Your task to perform on an android device: Search for the best rated kitchen reno kits on Lowes.com Image 0: 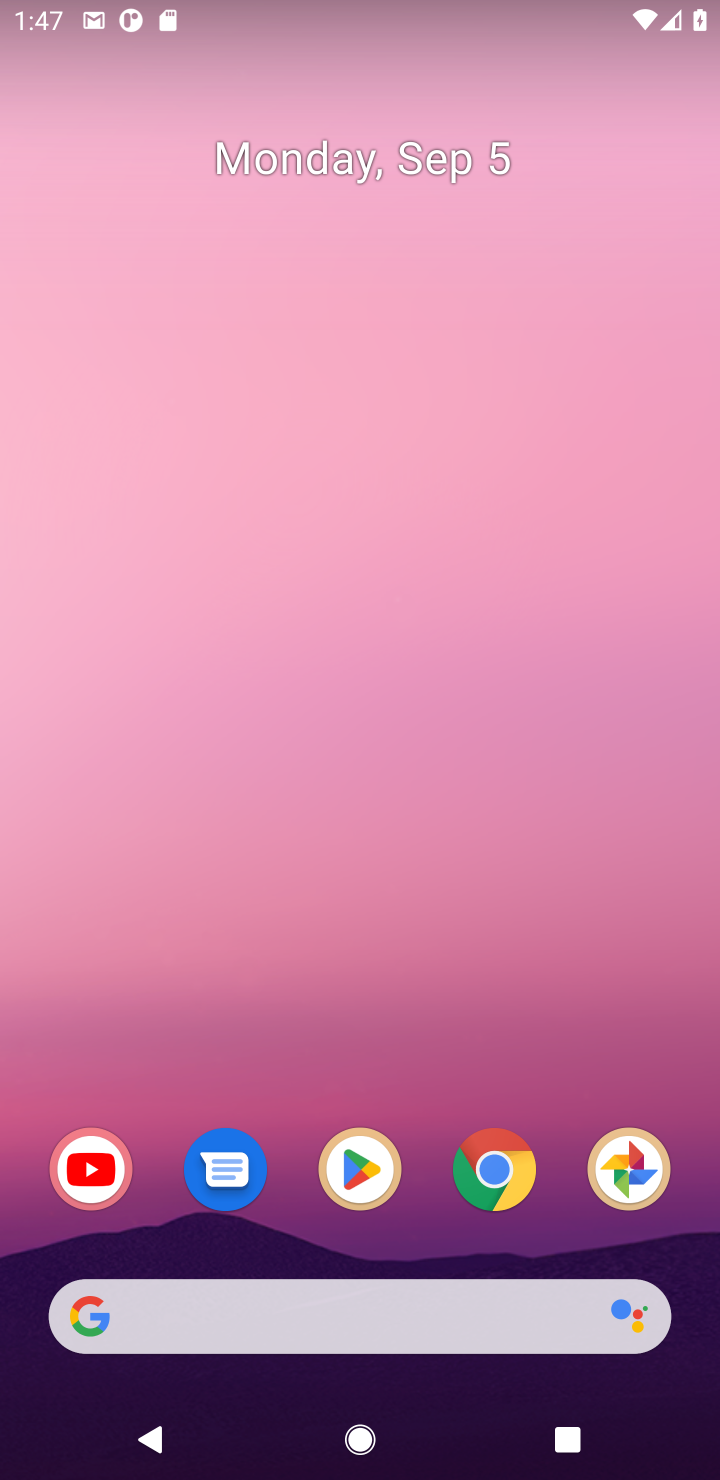
Step 0: click (630, 1179)
Your task to perform on an android device: Search for the best rated kitchen reno kits on Lowes.com Image 1: 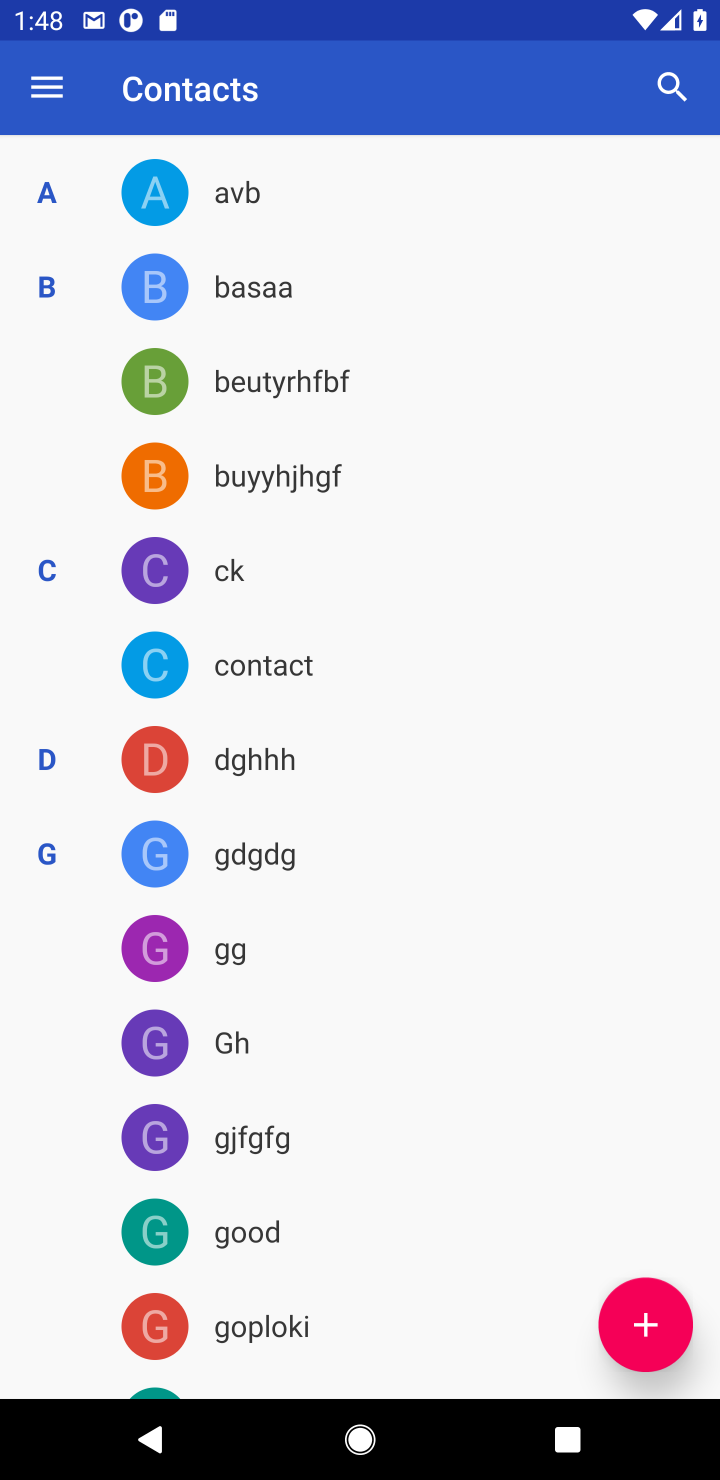
Step 1: task complete